Your task to perform on an android device: delete the emails in spam in the gmail app Image 0: 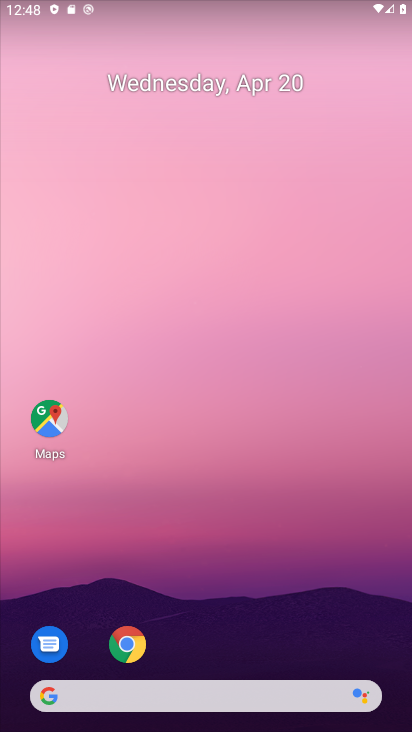
Step 0: drag from (315, 654) to (328, 16)
Your task to perform on an android device: delete the emails in spam in the gmail app Image 1: 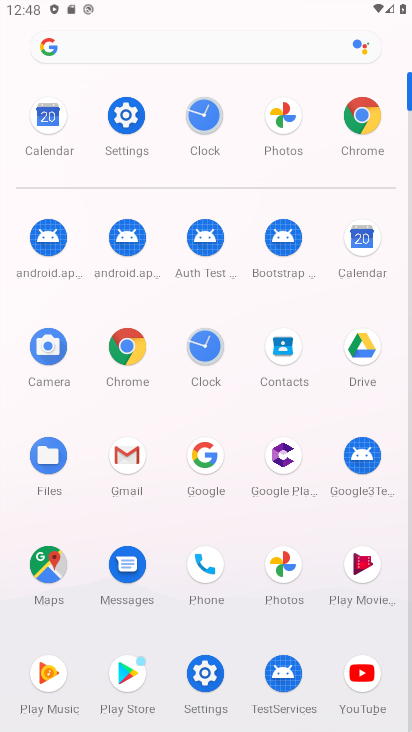
Step 1: click (138, 460)
Your task to perform on an android device: delete the emails in spam in the gmail app Image 2: 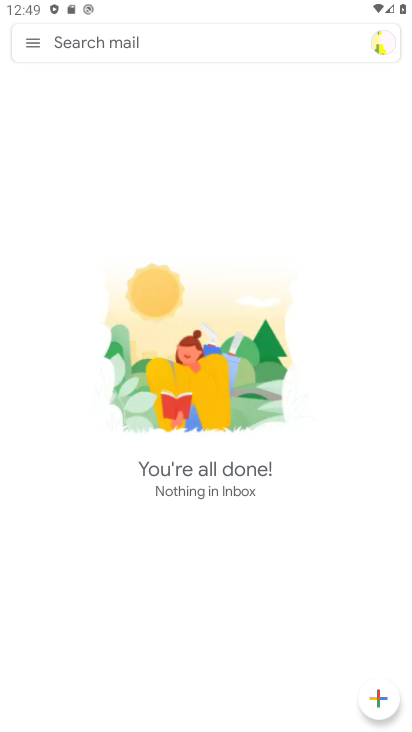
Step 2: click (35, 39)
Your task to perform on an android device: delete the emails in spam in the gmail app Image 3: 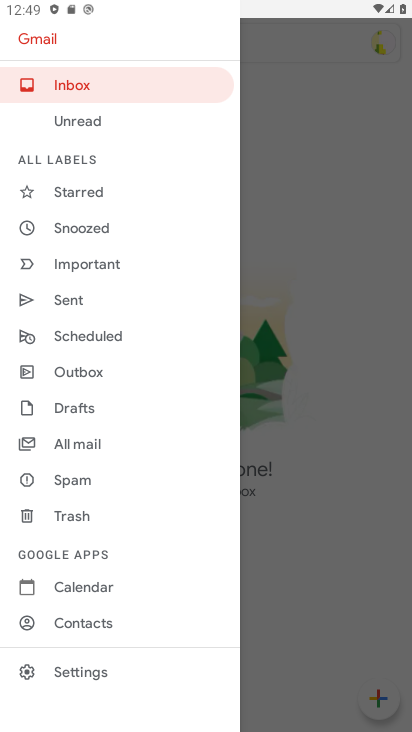
Step 3: click (79, 475)
Your task to perform on an android device: delete the emails in spam in the gmail app Image 4: 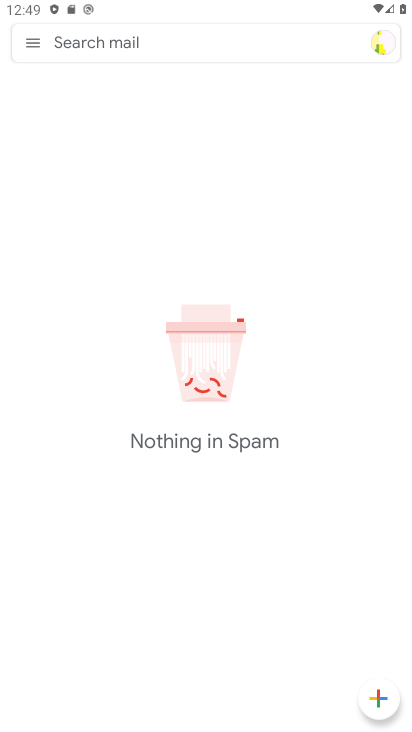
Step 4: task complete